Your task to perform on an android device: Show the shopping cart on newegg.com. Add "usb-a to usb-b" to the cart on newegg.com, then select checkout. Image 0: 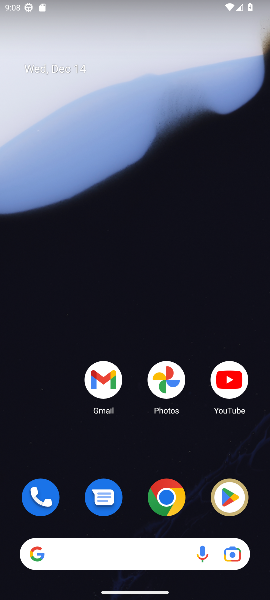
Step 0: click (161, 502)
Your task to perform on an android device: Show the shopping cart on newegg.com. Add "usb-a to usb-b" to the cart on newegg.com, then select checkout. Image 1: 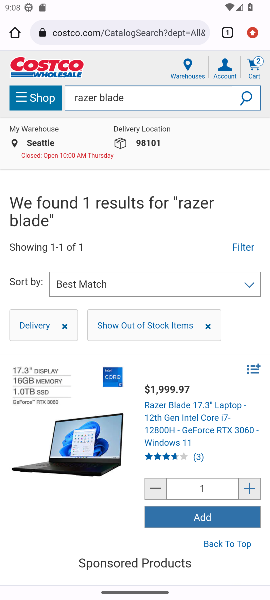
Step 1: click (106, 40)
Your task to perform on an android device: Show the shopping cart on newegg.com. Add "usb-a to usb-b" to the cart on newegg.com, then select checkout. Image 2: 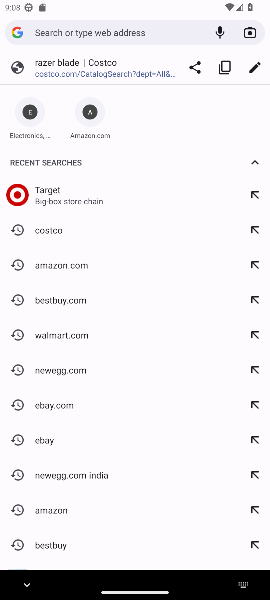
Step 2: type "newegg.com"
Your task to perform on an android device: Show the shopping cart on newegg.com. Add "usb-a to usb-b" to the cart on newegg.com, then select checkout. Image 3: 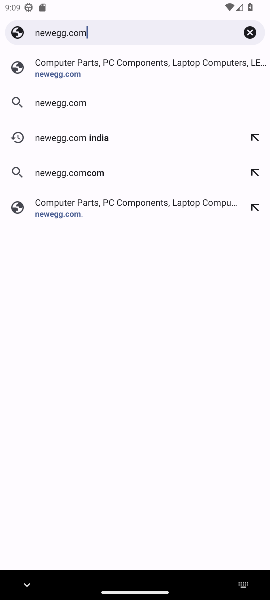
Step 3: press enter
Your task to perform on an android device: Show the shopping cart on newegg.com. Add "usb-a to usb-b" to the cart on newegg.com, then select checkout. Image 4: 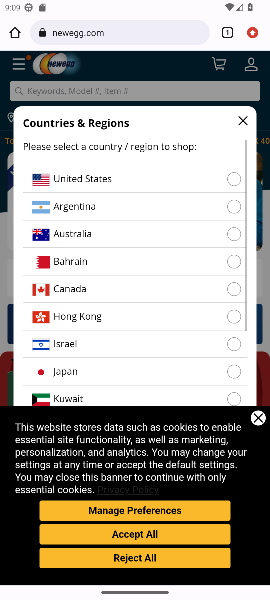
Step 4: click (237, 180)
Your task to perform on an android device: Show the shopping cart on newegg.com. Add "usb-a to usb-b" to the cart on newegg.com, then select checkout. Image 5: 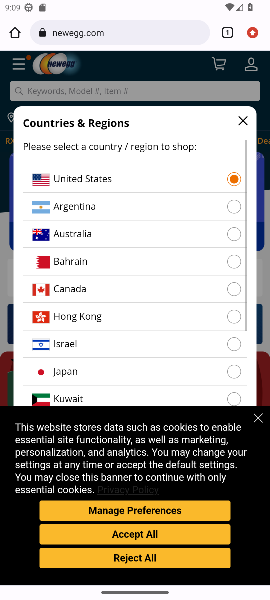
Step 5: click (130, 533)
Your task to perform on an android device: Show the shopping cart on newegg.com. Add "usb-a to usb-b" to the cart on newegg.com, then select checkout. Image 6: 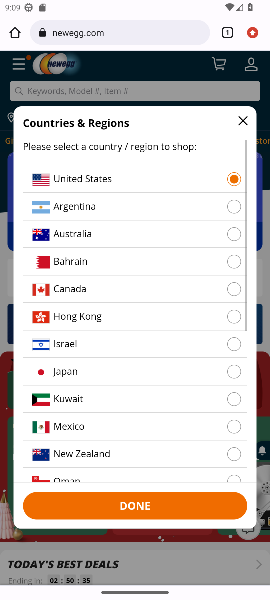
Step 6: click (136, 508)
Your task to perform on an android device: Show the shopping cart on newegg.com. Add "usb-a to usb-b" to the cart on newegg.com, then select checkout. Image 7: 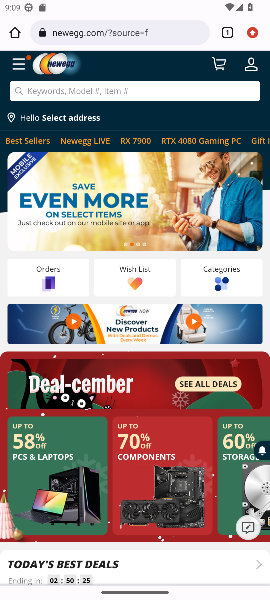
Step 7: click (23, 63)
Your task to perform on an android device: Show the shopping cart on newegg.com. Add "usb-a to usb-b" to the cart on newegg.com, then select checkout. Image 8: 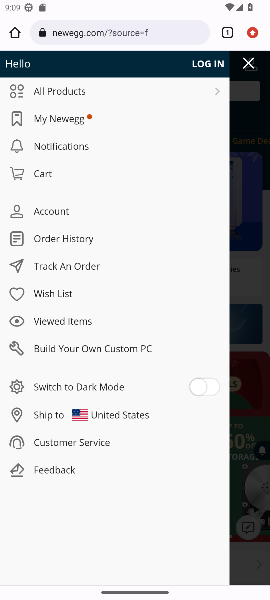
Step 8: click (44, 173)
Your task to perform on an android device: Show the shopping cart on newegg.com. Add "usb-a to usb-b" to the cart on newegg.com, then select checkout. Image 9: 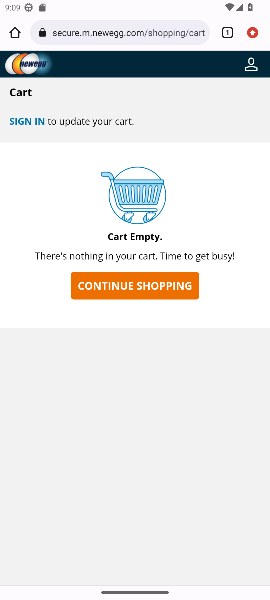
Step 9: click (30, 69)
Your task to perform on an android device: Show the shopping cart on newegg.com. Add "usb-a to usb-b" to the cart on newegg.com, then select checkout. Image 10: 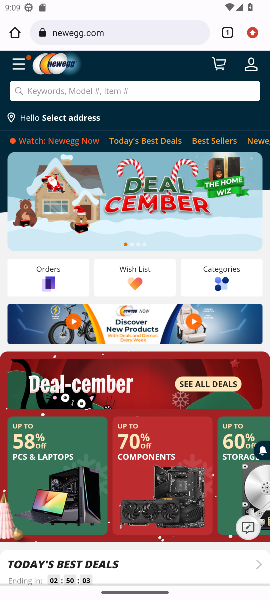
Step 10: click (78, 95)
Your task to perform on an android device: Show the shopping cart on newegg.com. Add "usb-a to usb-b" to the cart on newegg.com, then select checkout. Image 11: 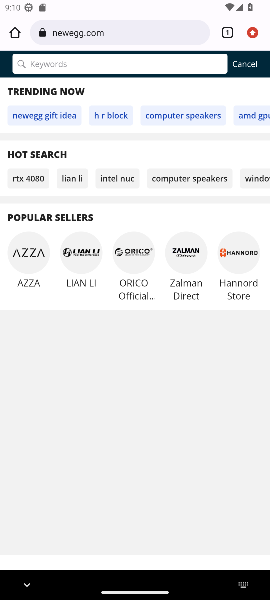
Step 11: press enter
Your task to perform on an android device: Show the shopping cart on newegg.com. Add "usb-a to usb-b" to the cart on newegg.com, then select checkout. Image 12: 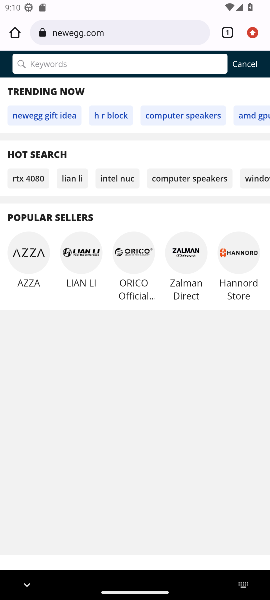
Step 12: type "usb-a to usb-b"
Your task to perform on an android device: Show the shopping cart on newegg.com. Add "usb-a to usb-b" to the cart on newegg.com, then select checkout. Image 13: 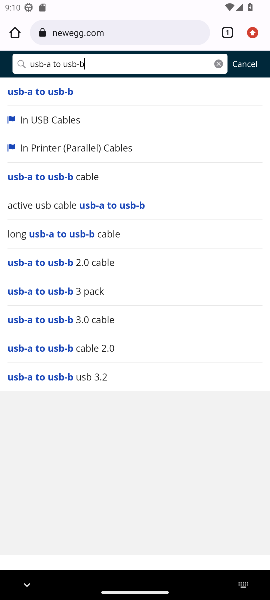
Step 13: click (49, 92)
Your task to perform on an android device: Show the shopping cart on newegg.com. Add "usb-a to usb-b" to the cart on newegg.com, then select checkout. Image 14: 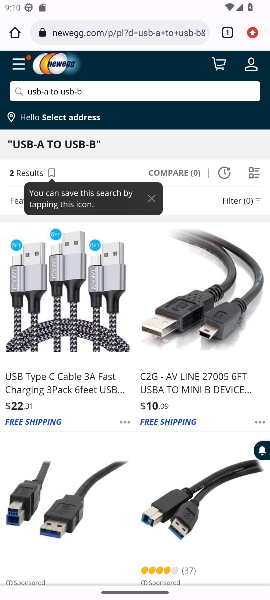
Step 14: click (74, 315)
Your task to perform on an android device: Show the shopping cart on newegg.com. Add "usb-a to usb-b" to the cart on newegg.com, then select checkout. Image 15: 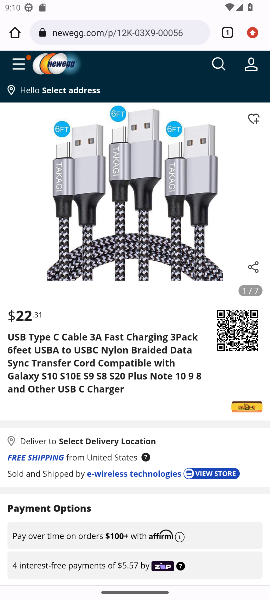
Step 15: drag from (187, 521) to (169, 184)
Your task to perform on an android device: Show the shopping cart on newegg.com. Add "usb-a to usb-b" to the cart on newegg.com, then select checkout. Image 16: 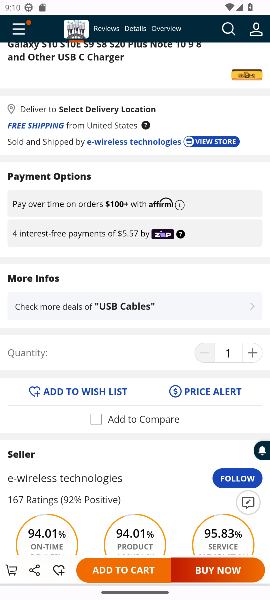
Step 16: click (116, 566)
Your task to perform on an android device: Show the shopping cart on newegg.com. Add "usb-a to usb-b" to the cart on newegg.com, then select checkout. Image 17: 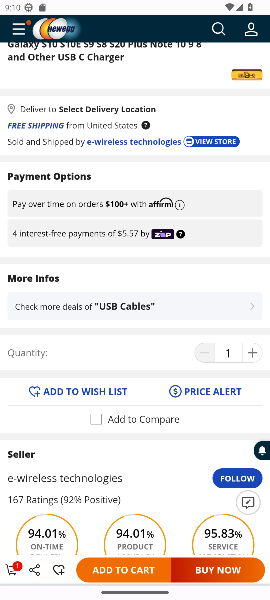
Step 17: click (12, 574)
Your task to perform on an android device: Show the shopping cart on newegg.com. Add "usb-a to usb-b" to the cart on newegg.com, then select checkout. Image 18: 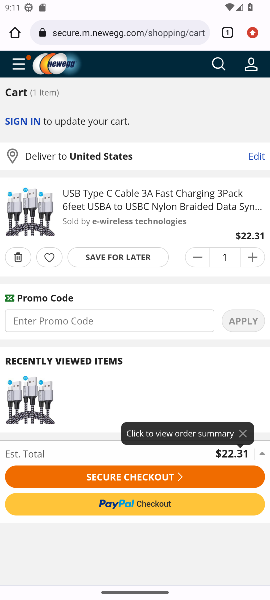
Step 18: click (170, 479)
Your task to perform on an android device: Show the shopping cart on newegg.com. Add "usb-a to usb-b" to the cart on newegg.com, then select checkout. Image 19: 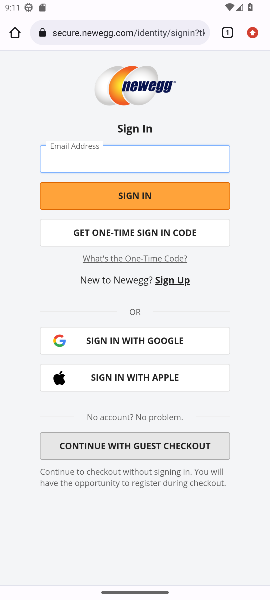
Step 19: task complete